Your task to perform on an android device: Go to calendar. Show me events next week Image 0: 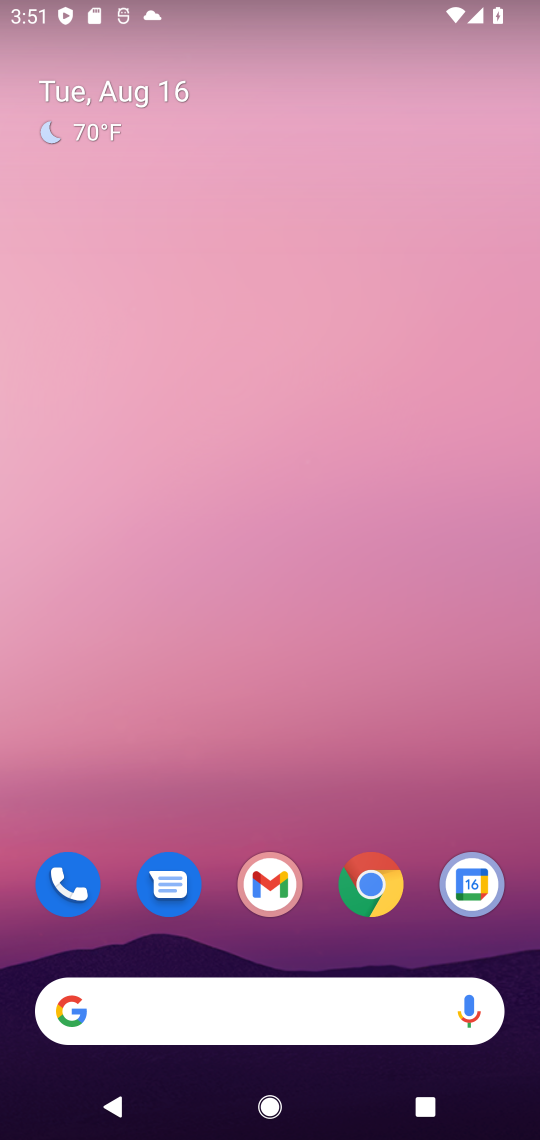
Step 0: drag from (287, 757) to (217, 101)
Your task to perform on an android device: Go to calendar. Show me events next week Image 1: 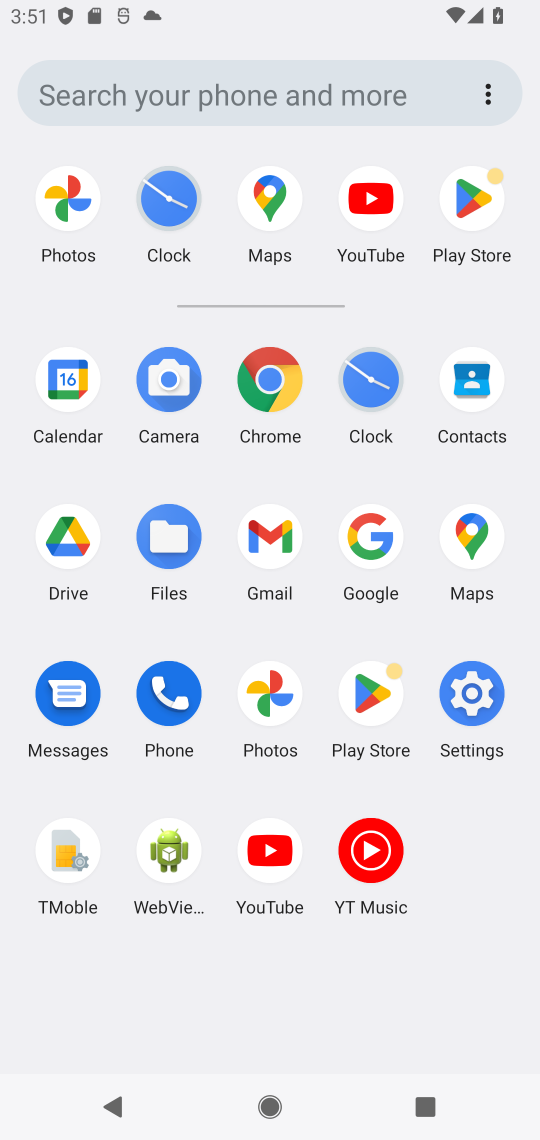
Step 1: click (63, 375)
Your task to perform on an android device: Go to calendar. Show me events next week Image 2: 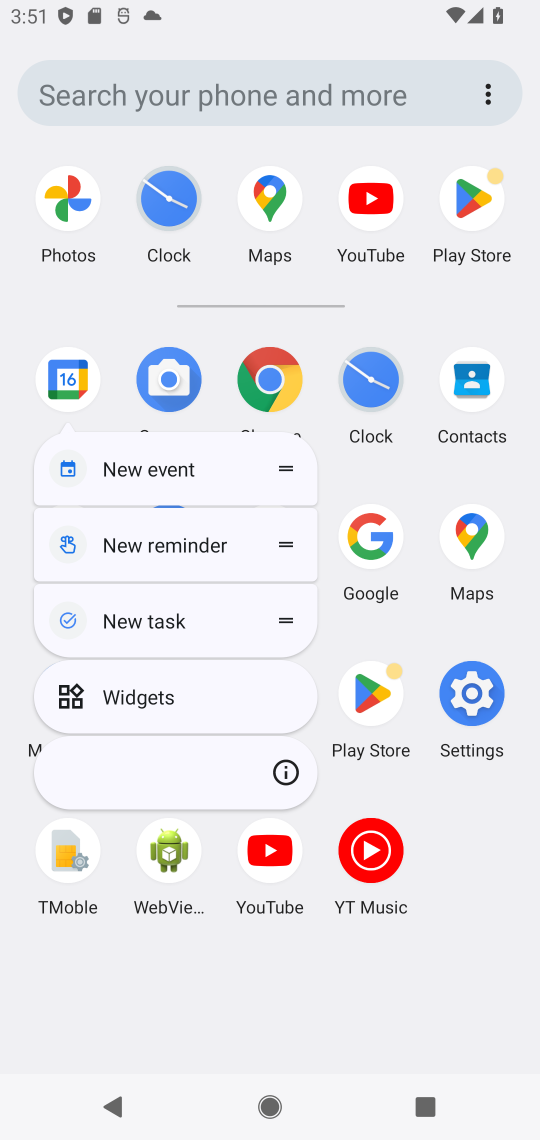
Step 2: click (63, 375)
Your task to perform on an android device: Go to calendar. Show me events next week Image 3: 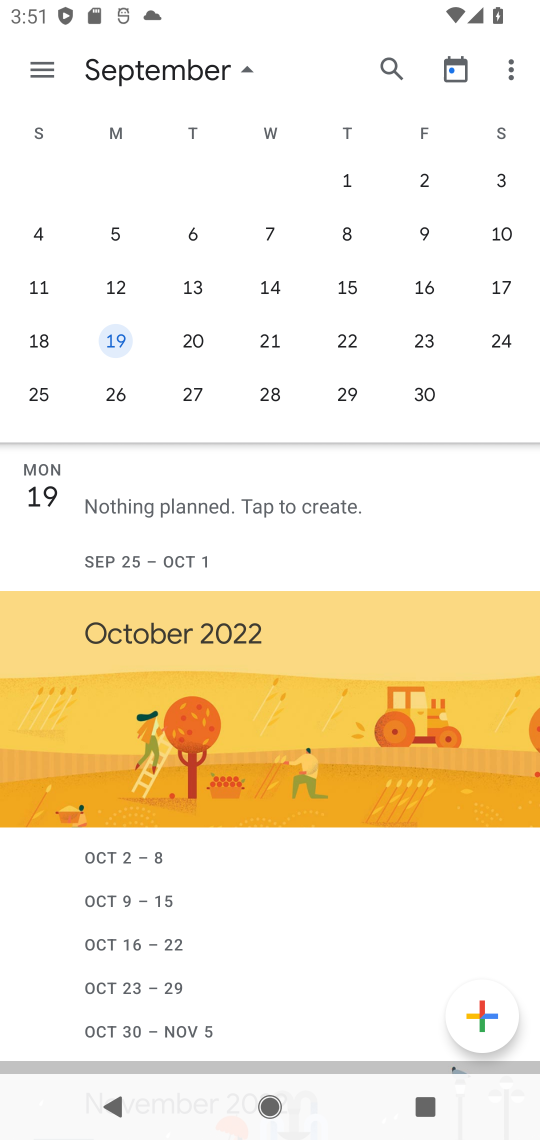
Step 3: drag from (63, 261) to (469, 280)
Your task to perform on an android device: Go to calendar. Show me events next week Image 4: 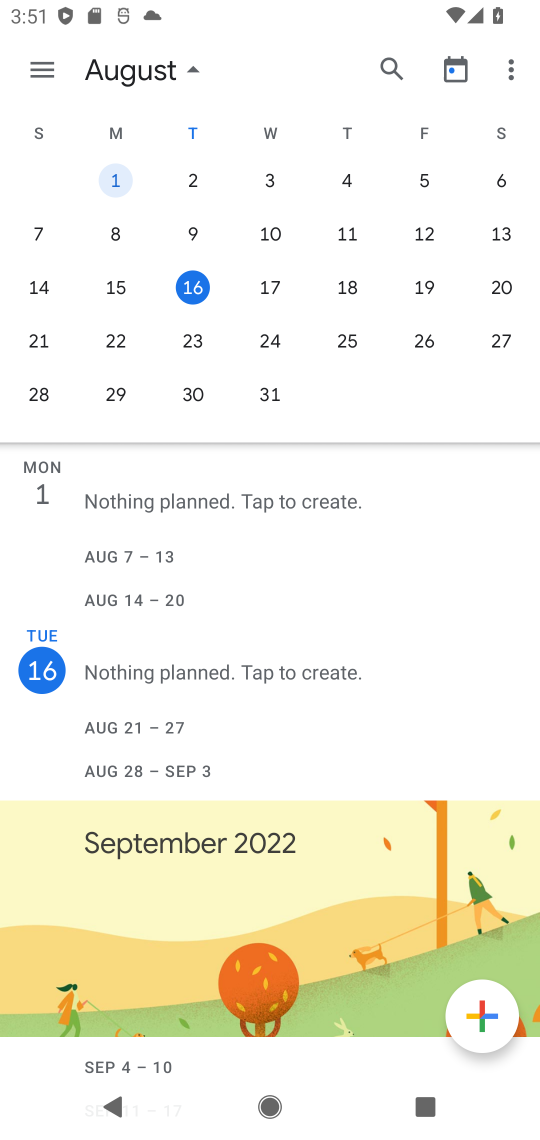
Step 4: click (41, 353)
Your task to perform on an android device: Go to calendar. Show me events next week Image 5: 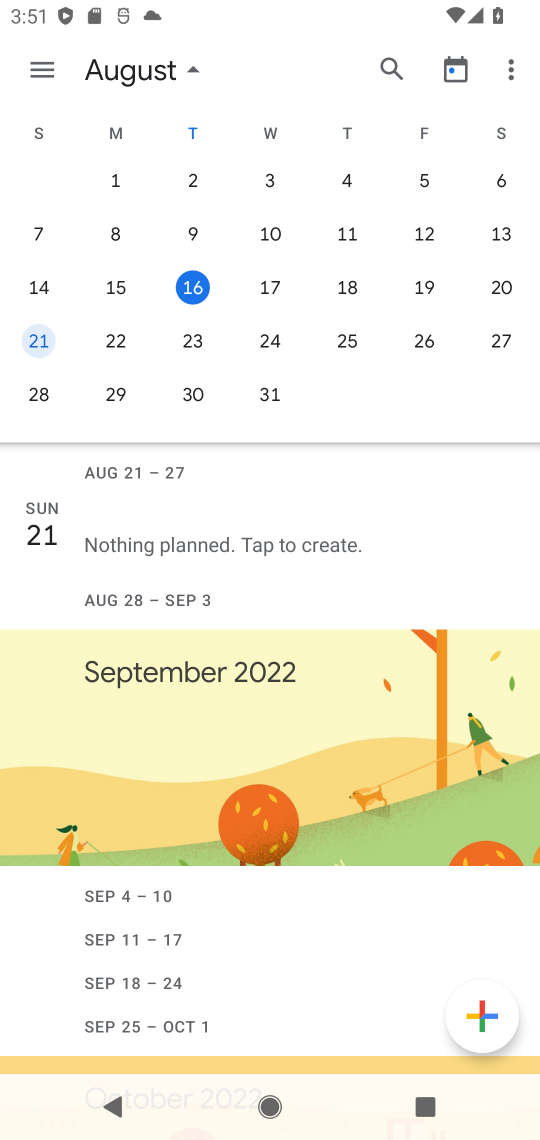
Step 5: click (113, 337)
Your task to perform on an android device: Go to calendar. Show me events next week Image 6: 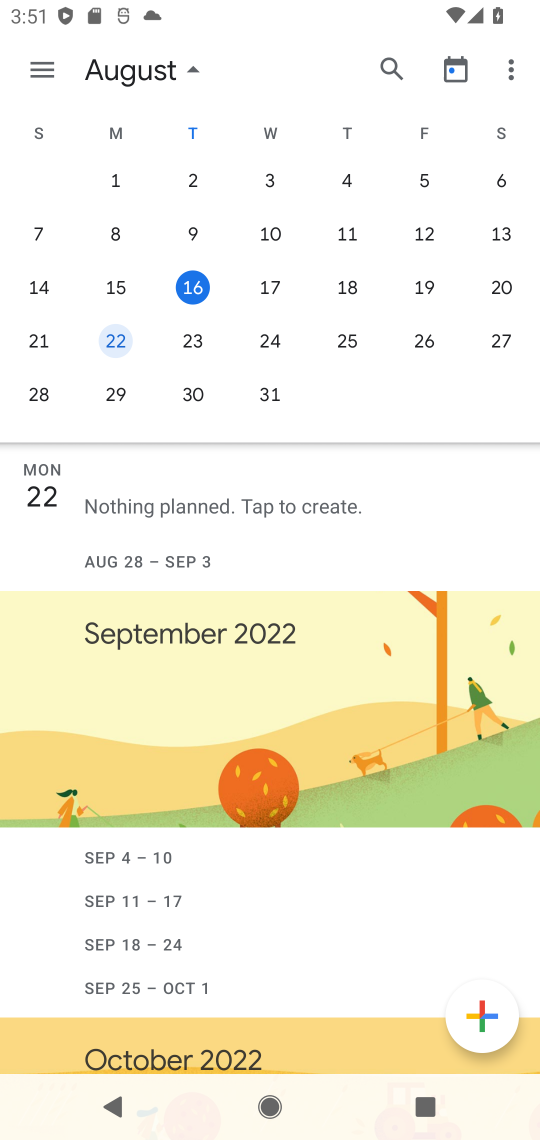
Step 6: click (33, 343)
Your task to perform on an android device: Go to calendar. Show me events next week Image 7: 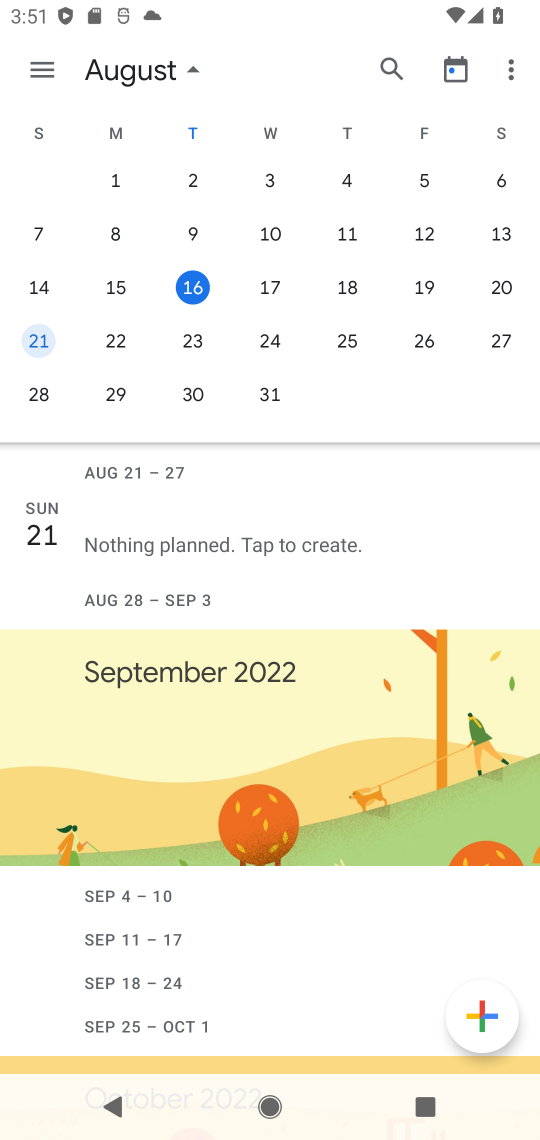
Step 7: task complete